Your task to perform on an android device: Open Youtube and go to the subscriptions tab Image 0: 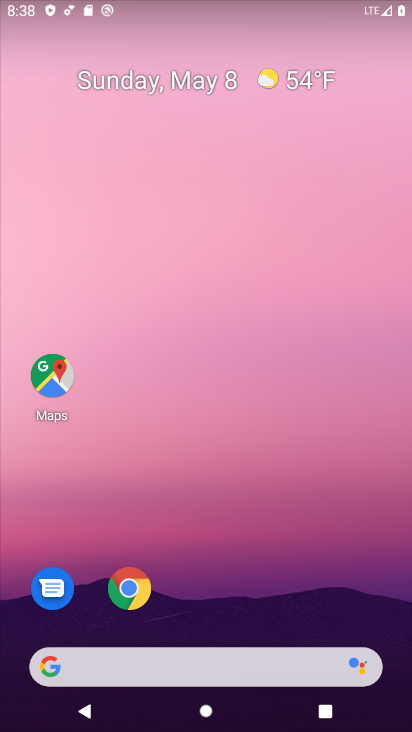
Step 0: drag from (391, 729) to (256, 252)
Your task to perform on an android device: Open Youtube and go to the subscriptions tab Image 1: 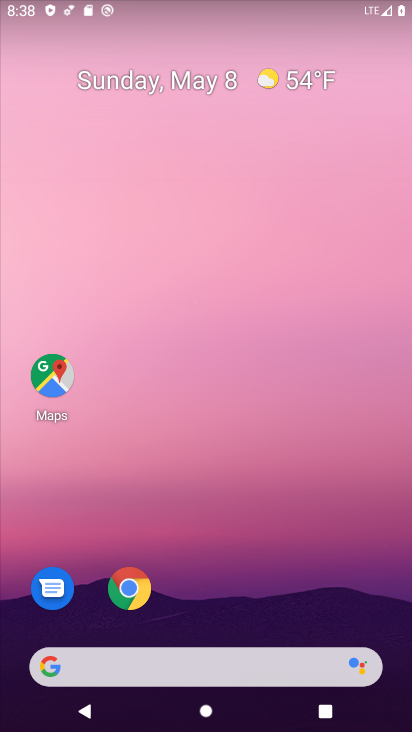
Step 1: drag from (27, 657) to (340, 243)
Your task to perform on an android device: Open Youtube and go to the subscriptions tab Image 2: 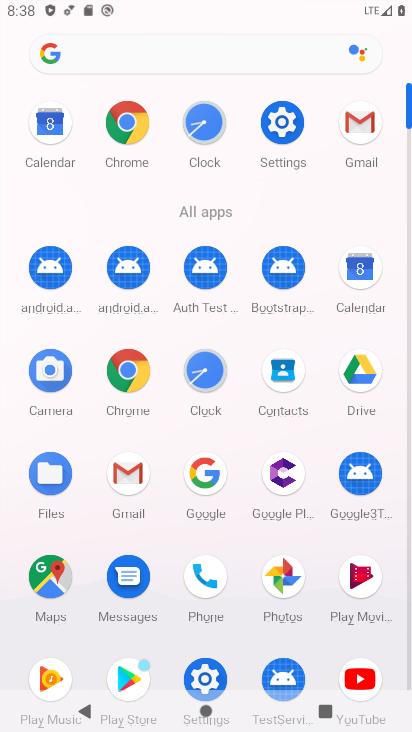
Step 2: click (367, 673)
Your task to perform on an android device: Open Youtube and go to the subscriptions tab Image 3: 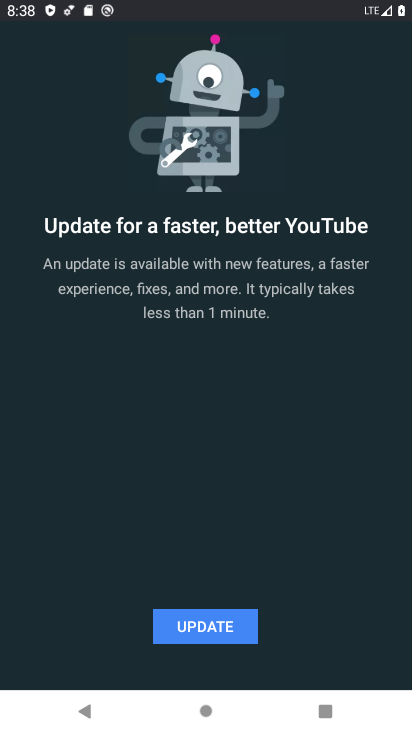
Step 3: click (159, 625)
Your task to perform on an android device: Open Youtube and go to the subscriptions tab Image 4: 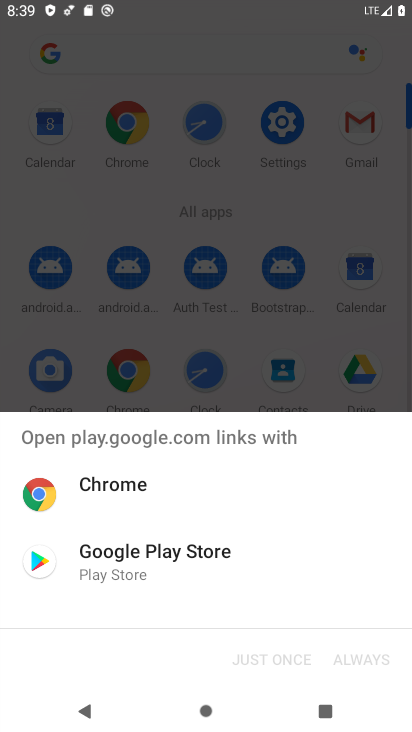
Step 4: click (300, 372)
Your task to perform on an android device: Open Youtube and go to the subscriptions tab Image 5: 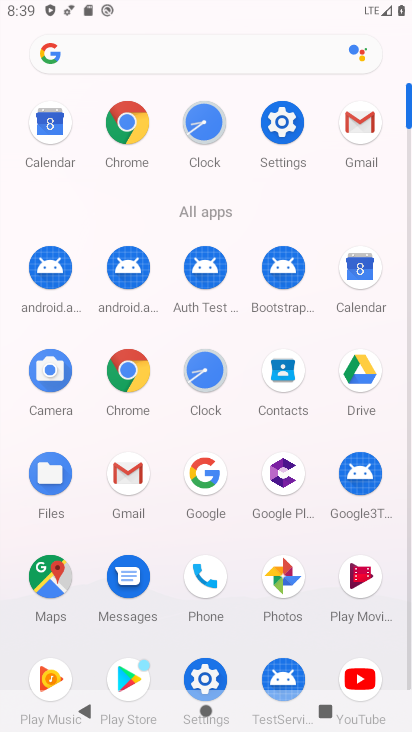
Step 5: click (362, 673)
Your task to perform on an android device: Open Youtube and go to the subscriptions tab Image 6: 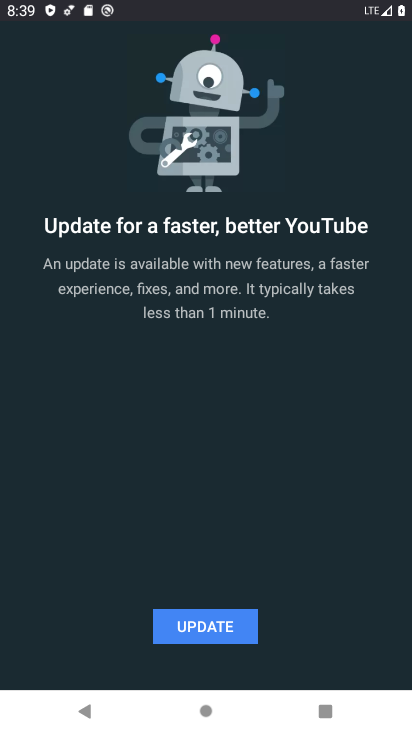
Step 6: click (221, 625)
Your task to perform on an android device: Open Youtube and go to the subscriptions tab Image 7: 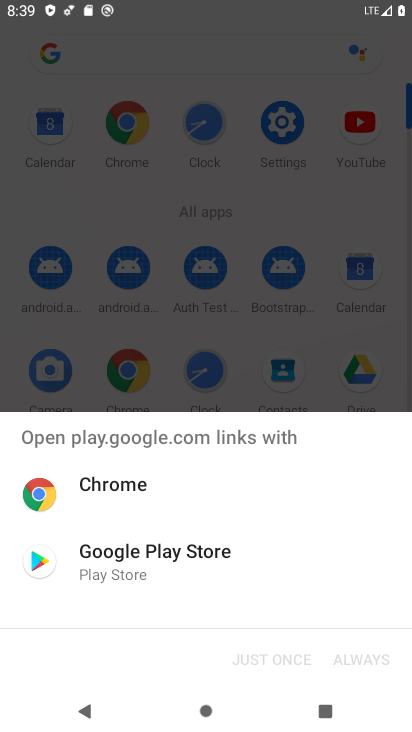
Step 7: click (150, 483)
Your task to perform on an android device: Open Youtube and go to the subscriptions tab Image 8: 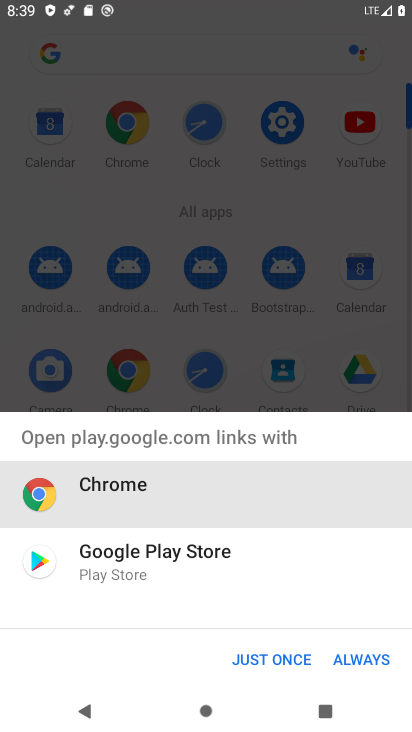
Step 8: click (283, 655)
Your task to perform on an android device: Open Youtube and go to the subscriptions tab Image 9: 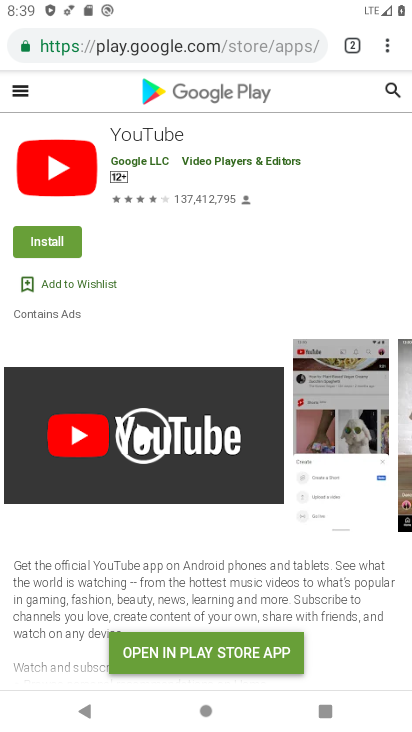
Step 9: click (29, 162)
Your task to perform on an android device: Open Youtube and go to the subscriptions tab Image 10: 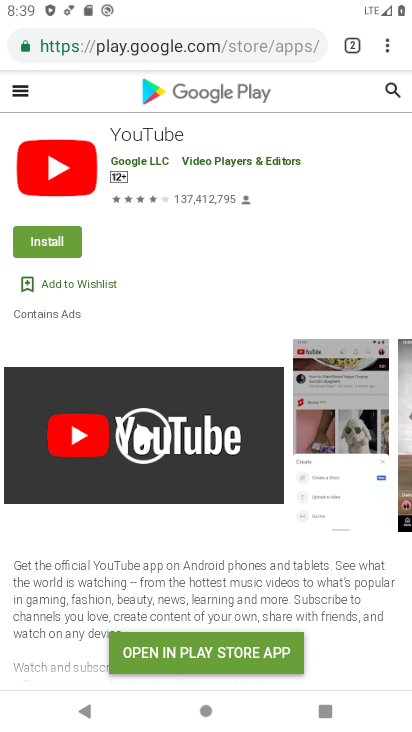
Step 10: press back button
Your task to perform on an android device: Open Youtube and go to the subscriptions tab Image 11: 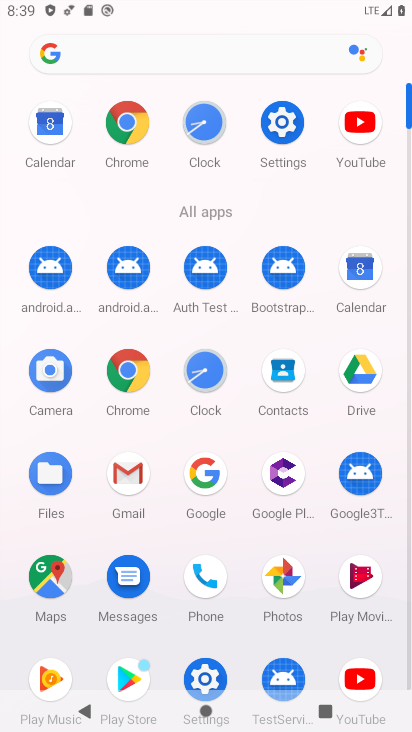
Step 11: click (364, 672)
Your task to perform on an android device: Open Youtube and go to the subscriptions tab Image 12: 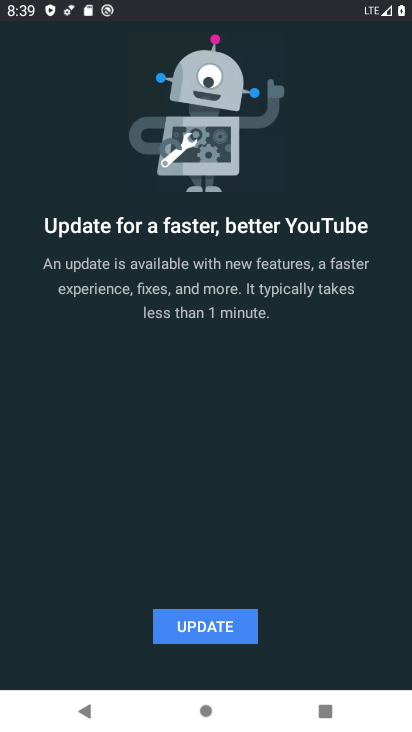
Step 12: click (198, 632)
Your task to perform on an android device: Open Youtube and go to the subscriptions tab Image 13: 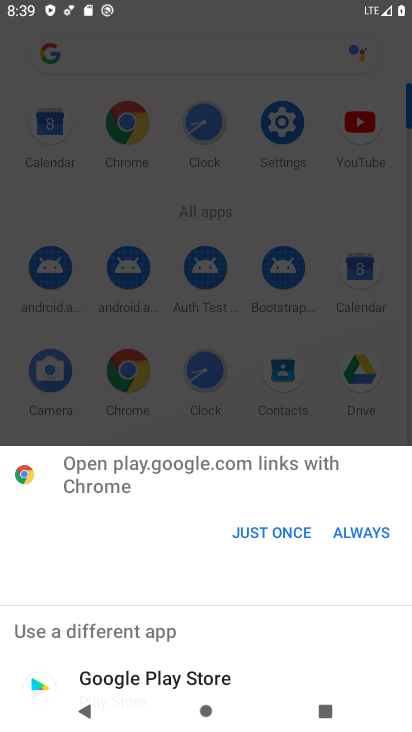
Step 13: click (142, 677)
Your task to perform on an android device: Open Youtube and go to the subscriptions tab Image 14: 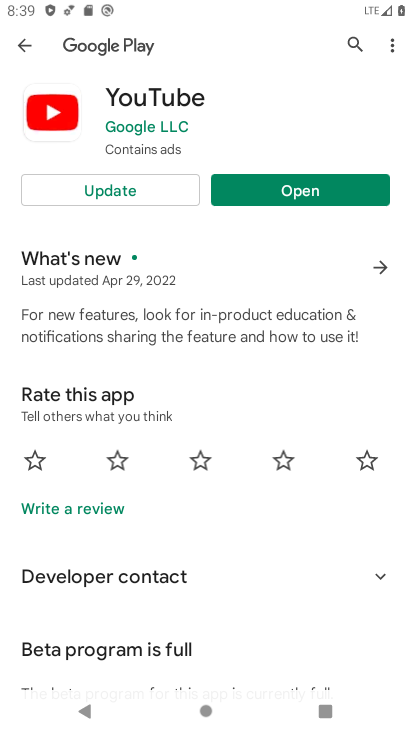
Step 14: click (263, 201)
Your task to perform on an android device: Open Youtube and go to the subscriptions tab Image 15: 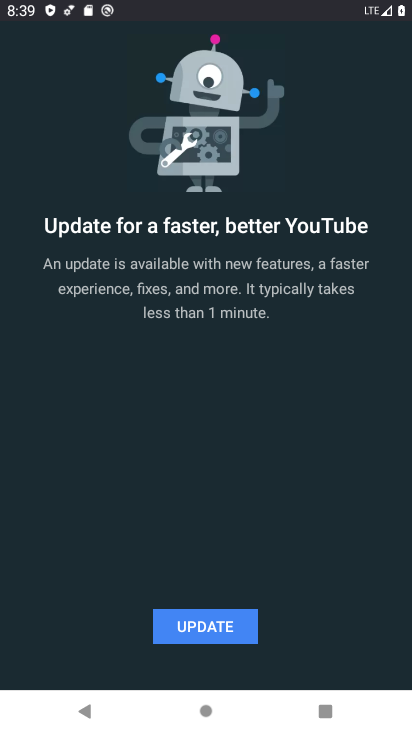
Step 15: task complete